Your task to perform on an android device: Go to privacy settings Image 0: 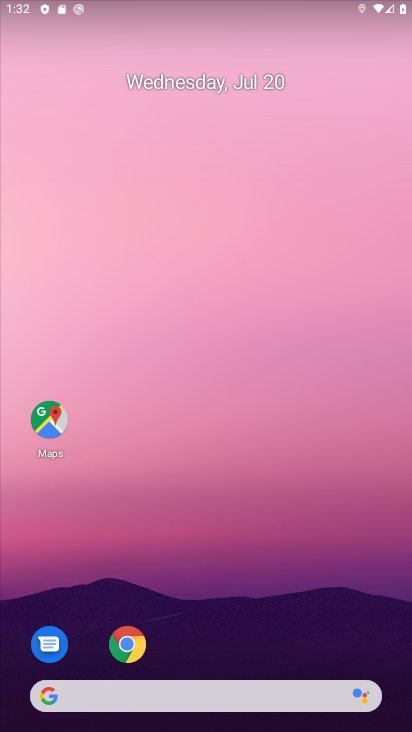
Step 0: drag from (263, 638) to (169, 95)
Your task to perform on an android device: Go to privacy settings Image 1: 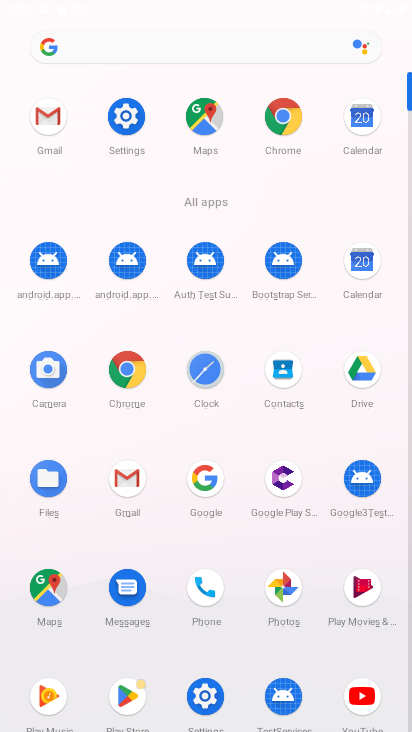
Step 1: click (130, 105)
Your task to perform on an android device: Go to privacy settings Image 2: 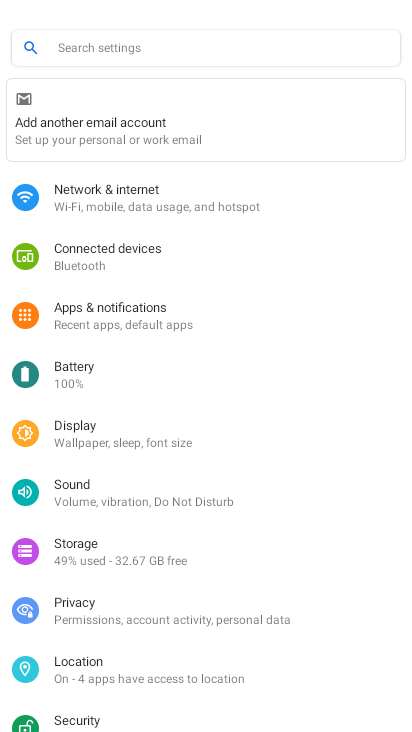
Step 2: click (110, 605)
Your task to perform on an android device: Go to privacy settings Image 3: 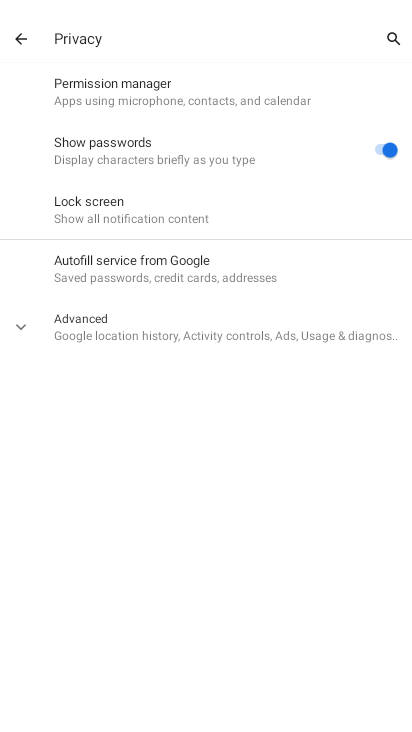
Step 3: task complete